Your task to perform on an android device: Show me popular videos on Youtube Image 0: 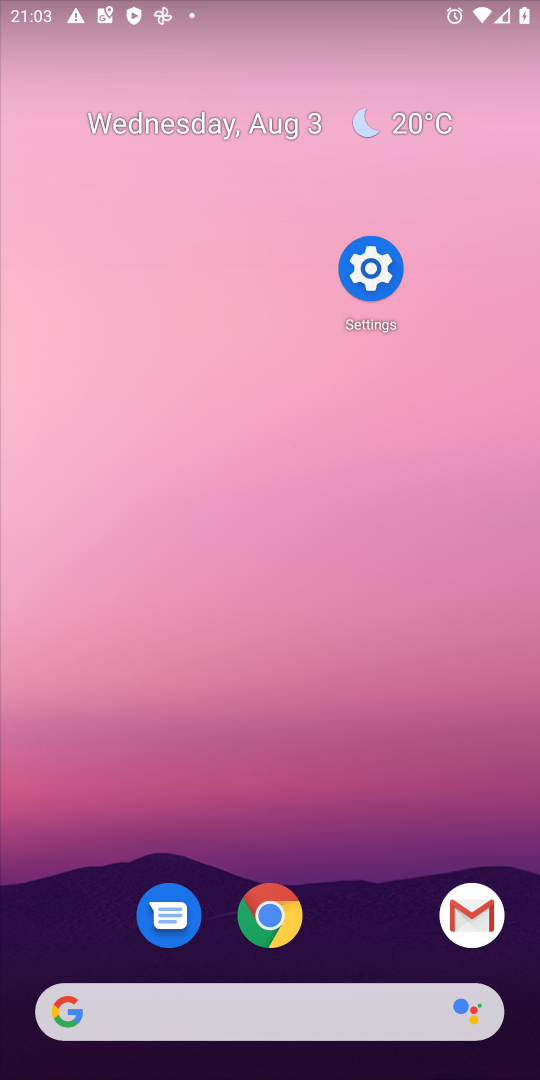
Step 0: press home button
Your task to perform on an android device: Show me popular videos on Youtube Image 1: 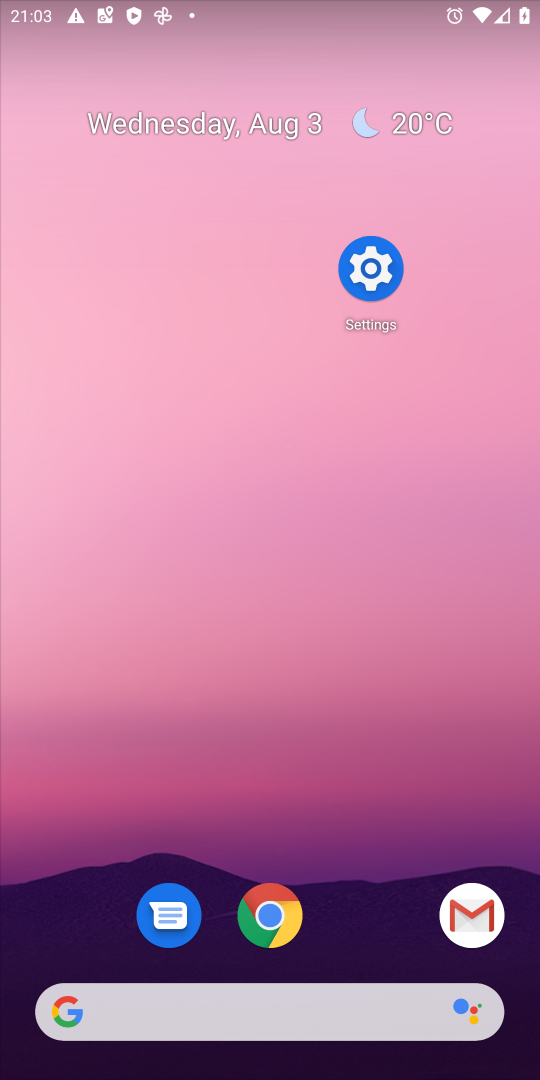
Step 1: drag from (334, 1062) to (177, 234)
Your task to perform on an android device: Show me popular videos on Youtube Image 2: 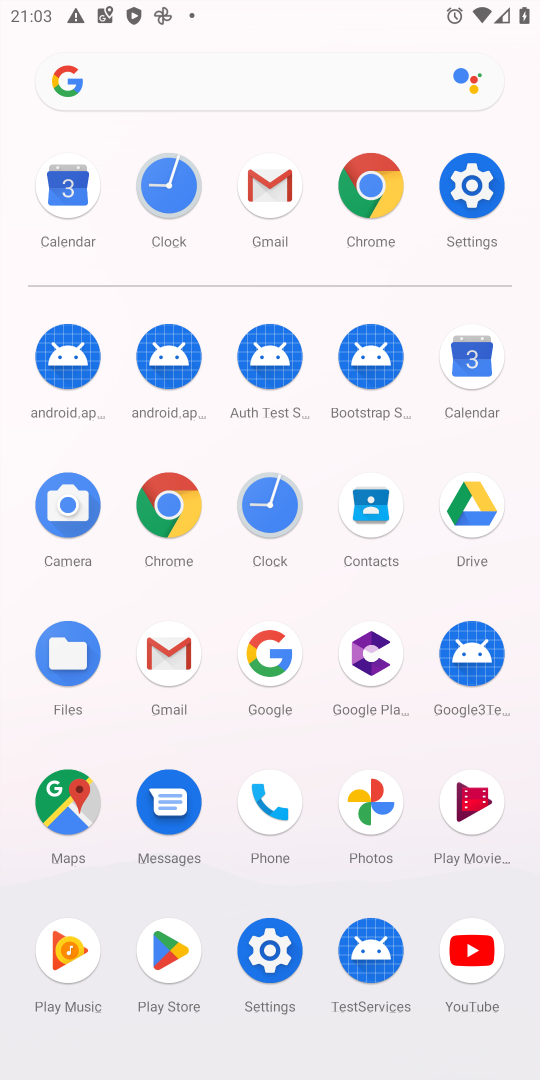
Step 2: click (471, 952)
Your task to perform on an android device: Show me popular videos on Youtube Image 3: 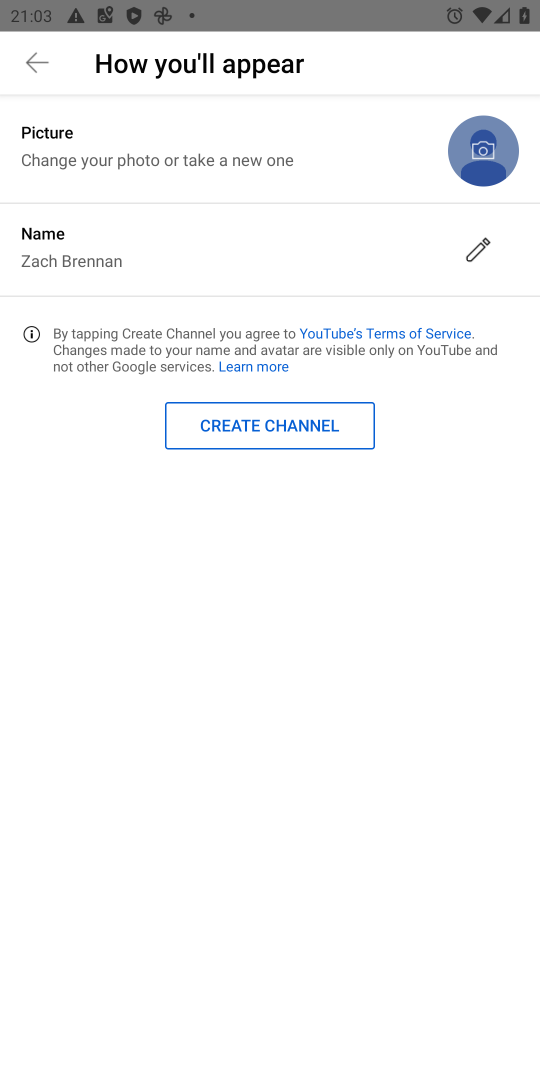
Step 3: click (40, 55)
Your task to perform on an android device: Show me popular videos on Youtube Image 4: 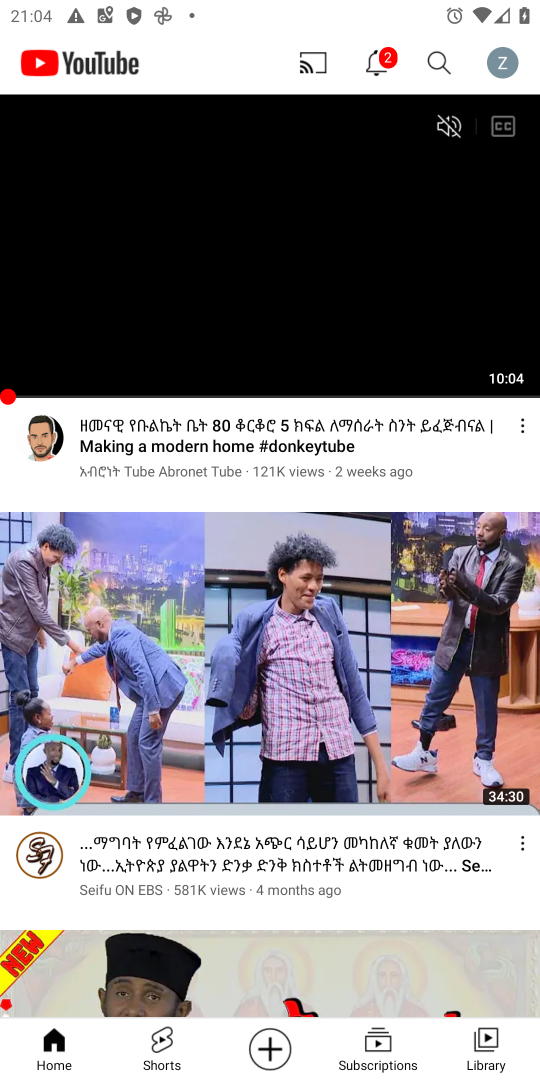
Step 4: click (447, 56)
Your task to perform on an android device: Show me popular videos on Youtube Image 5: 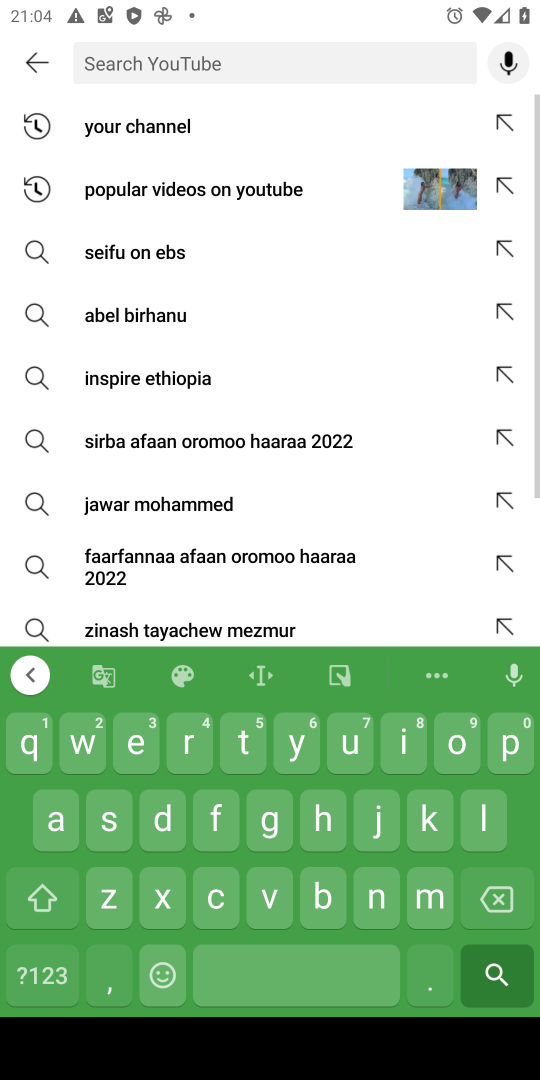
Step 5: click (247, 195)
Your task to perform on an android device: Show me popular videos on Youtube Image 6: 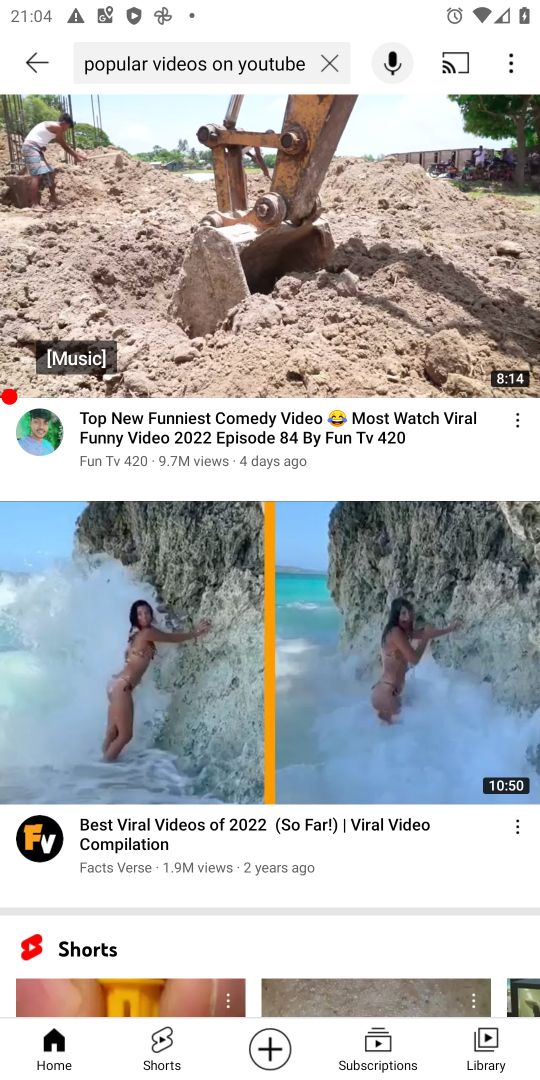
Step 6: task complete